Your task to perform on an android device: Open privacy settings Image 0: 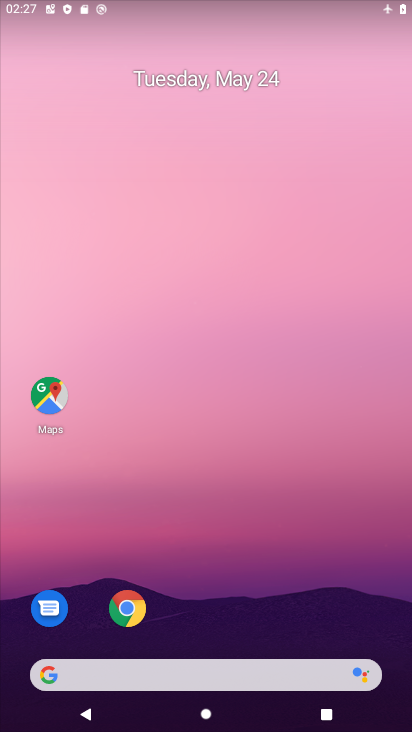
Step 0: drag from (248, 596) to (234, 202)
Your task to perform on an android device: Open privacy settings Image 1: 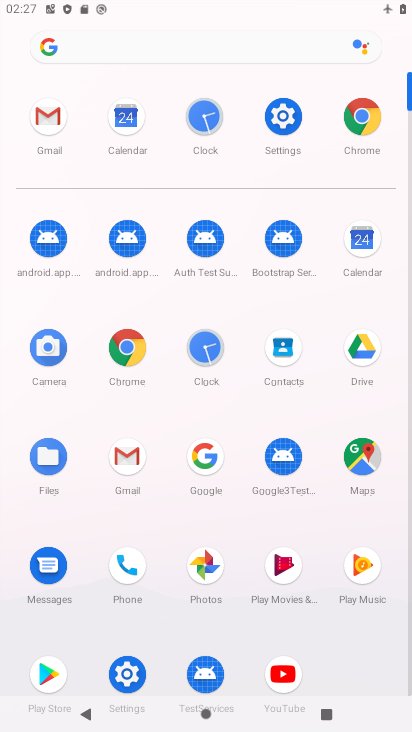
Step 1: click (289, 127)
Your task to perform on an android device: Open privacy settings Image 2: 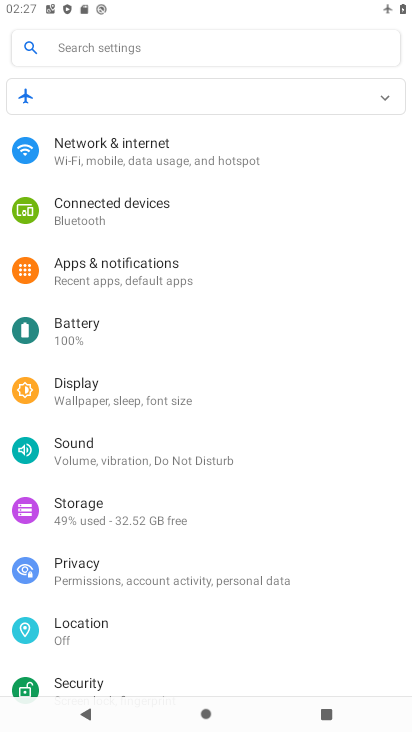
Step 2: click (160, 565)
Your task to perform on an android device: Open privacy settings Image 3: 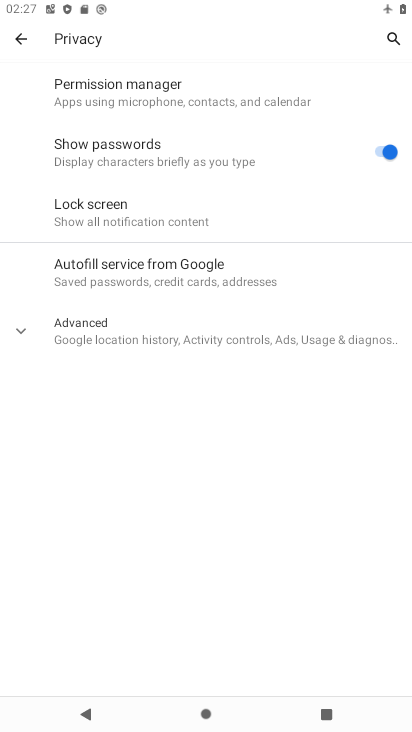
Step 3: task complete